Your task to perform on an android device: open app "Life360: Find Family & Friends" (install if not already installed) Image 0: 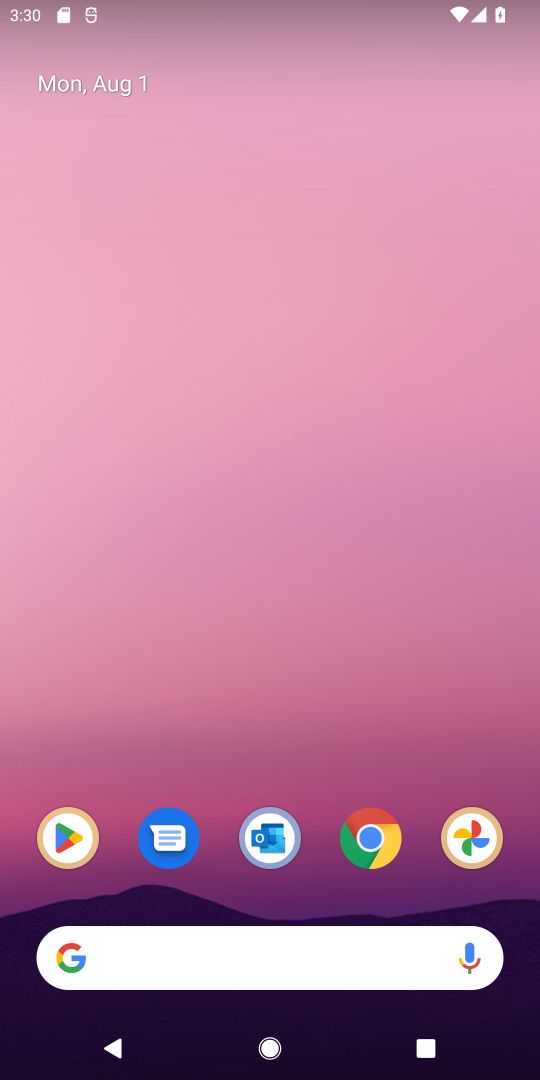
Step 0: click (48, 845)
Your task to perform on an android device: open app "Life360: Find Family & Friends" (install if not already installed) Image 1: 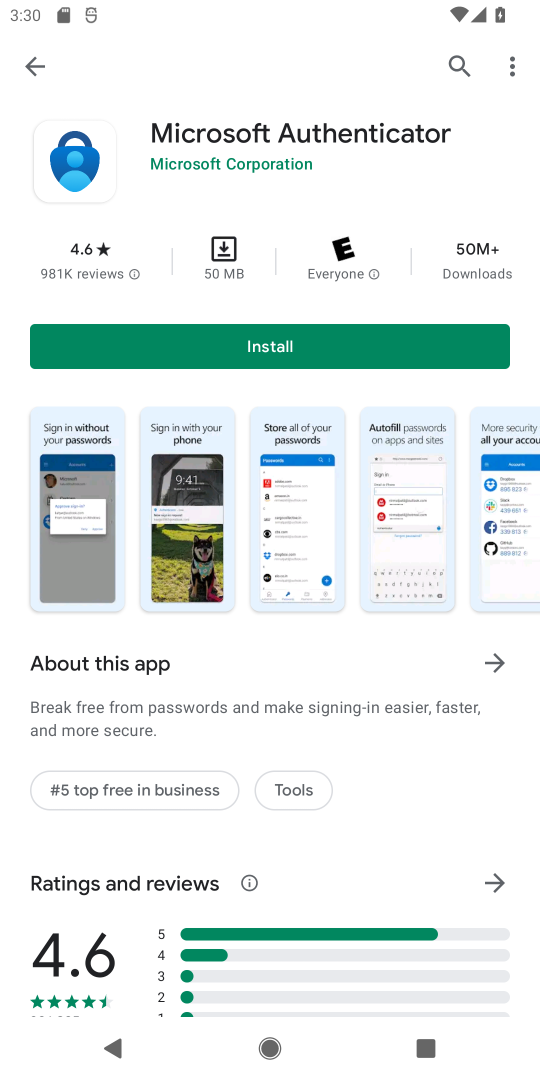
Step 1: click (454, 74)
Your task to perform on an android device: open app "Life360: Find Family & Friends" (install if not already installed) Image 2: 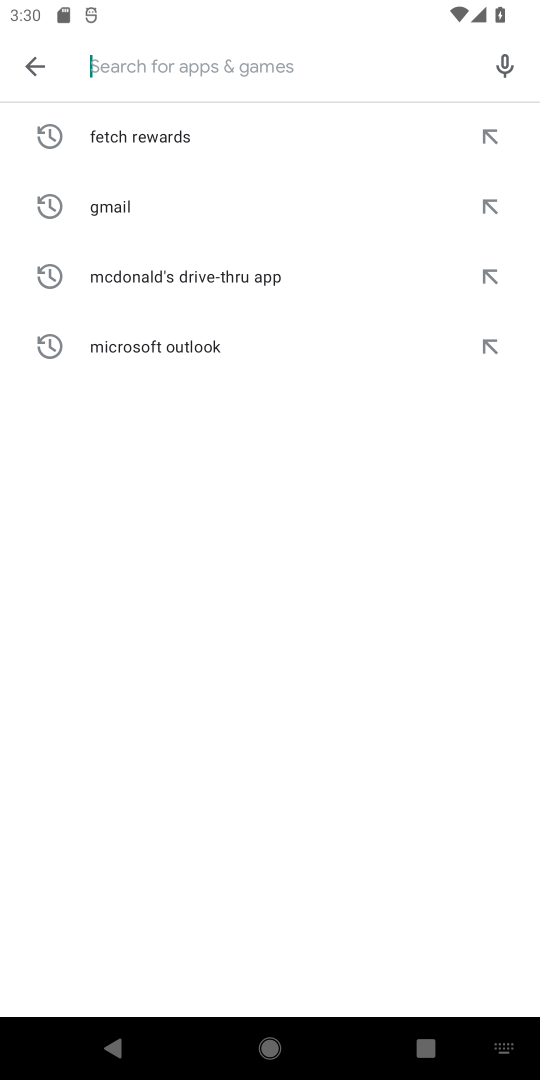
Step 2: click (439, 67)
Your task to perform on an android device: open app "Life360: Find Family & Friends" (install if not already installed) Image 3: 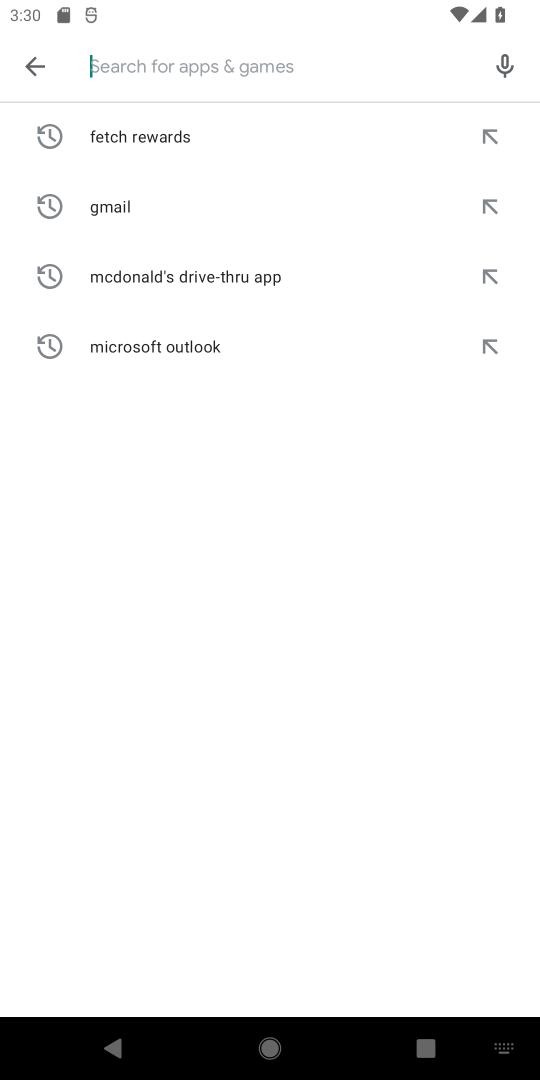
Step 3: type "Life360: Find Family & Friends"
Your task to perform on an android device: open app "Life360: Find Family & Friends" (install if not already installed) Image 4: 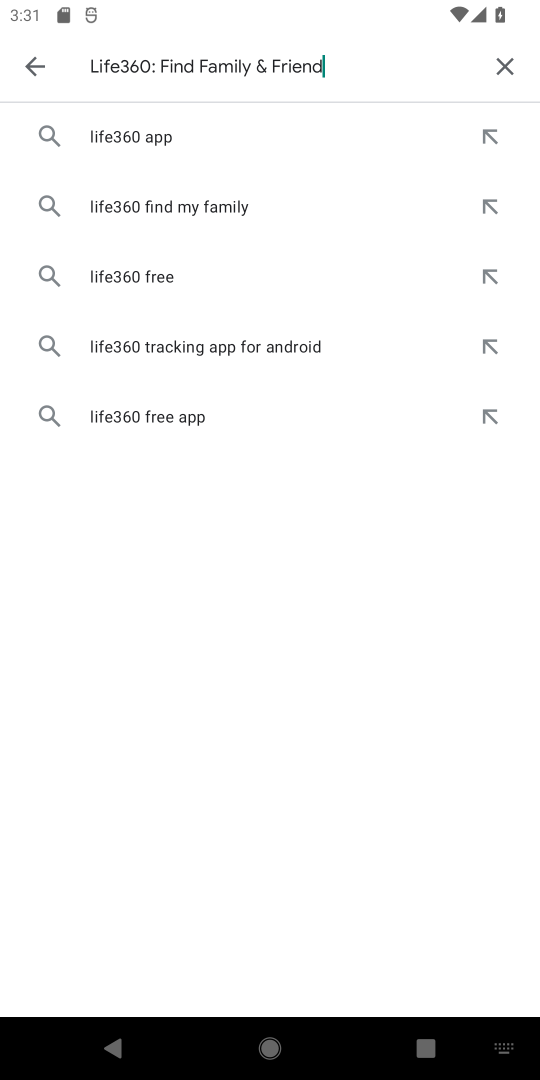
Step 4: type ""
Your task to perform on an android device: open app "Life360: Find Family & Friends" (install if not already installed) Image 5: 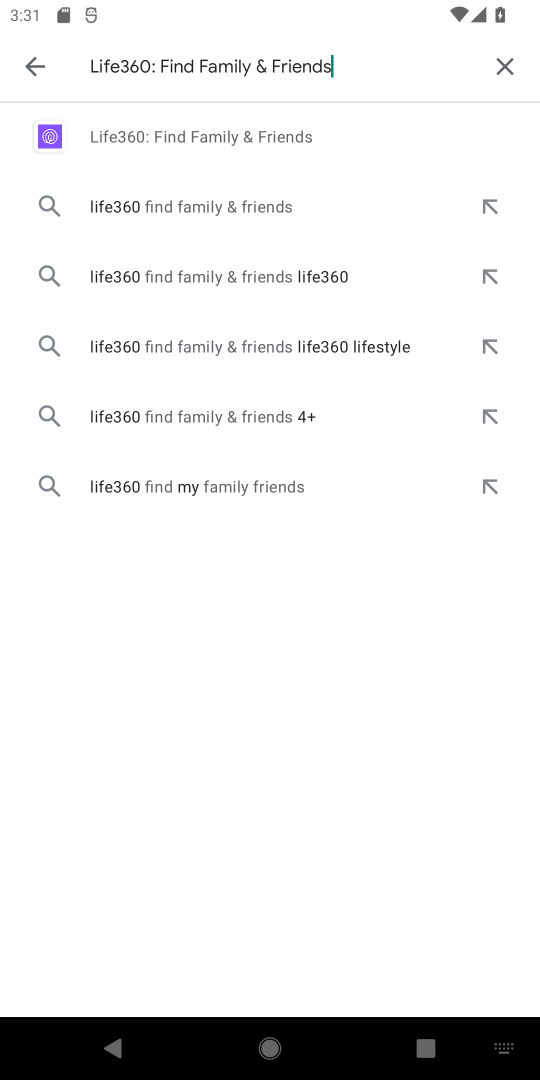
Step 5: click (221, 144)
Your task to perform on an android device: open app "Life360: Find Family & Friends" (install if not already installed) Image 6: 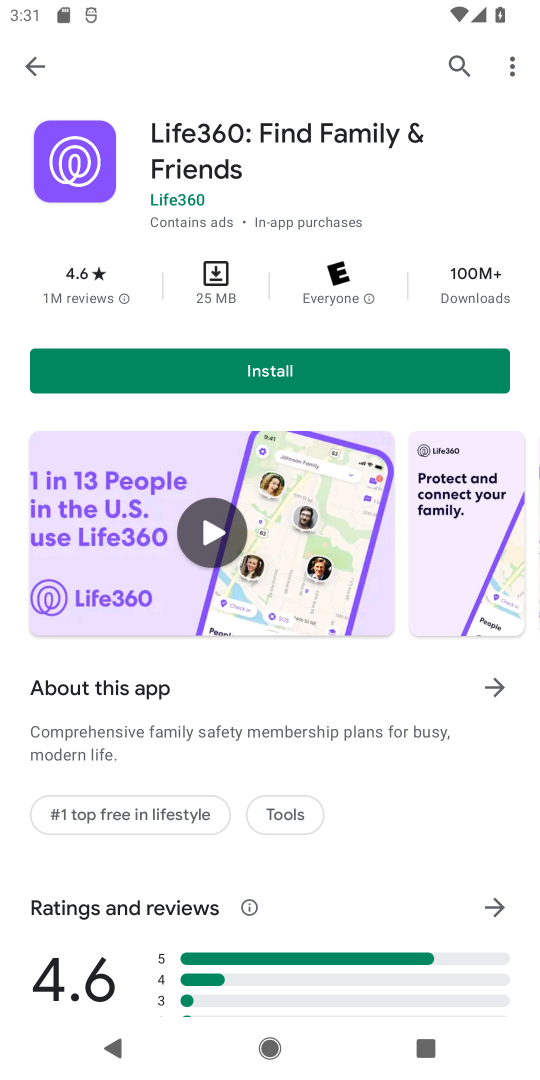
Step 6: click (291, 380)
Your task to perform on an android device: open app "Life360: Find Family & Friends" (install if not already installed) Image 7: 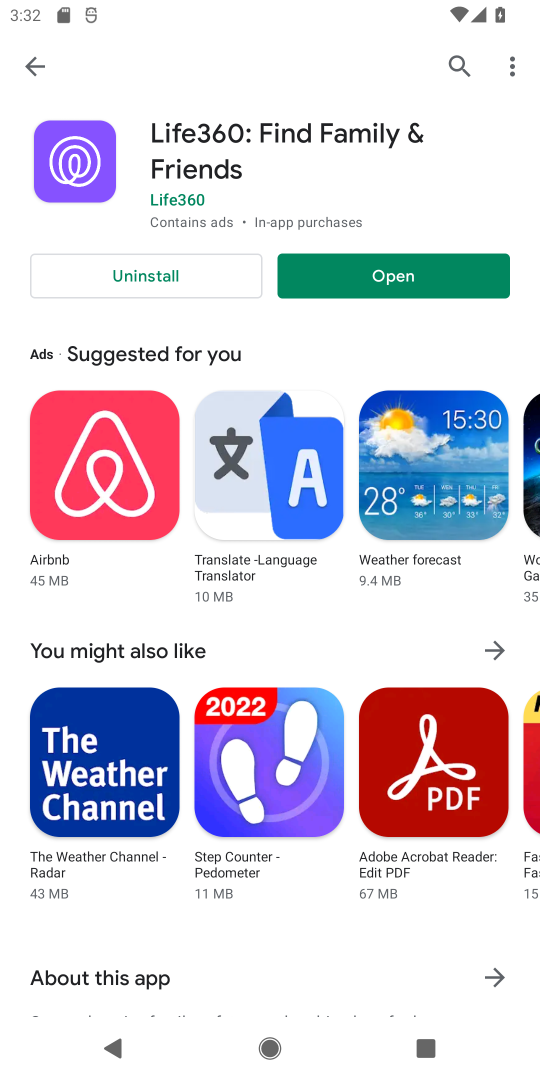
Step 7: click (351, 262)
Your task to perform on an android device: open app "Life360: Find Family & Friends" (install if not already installed) Image 8: 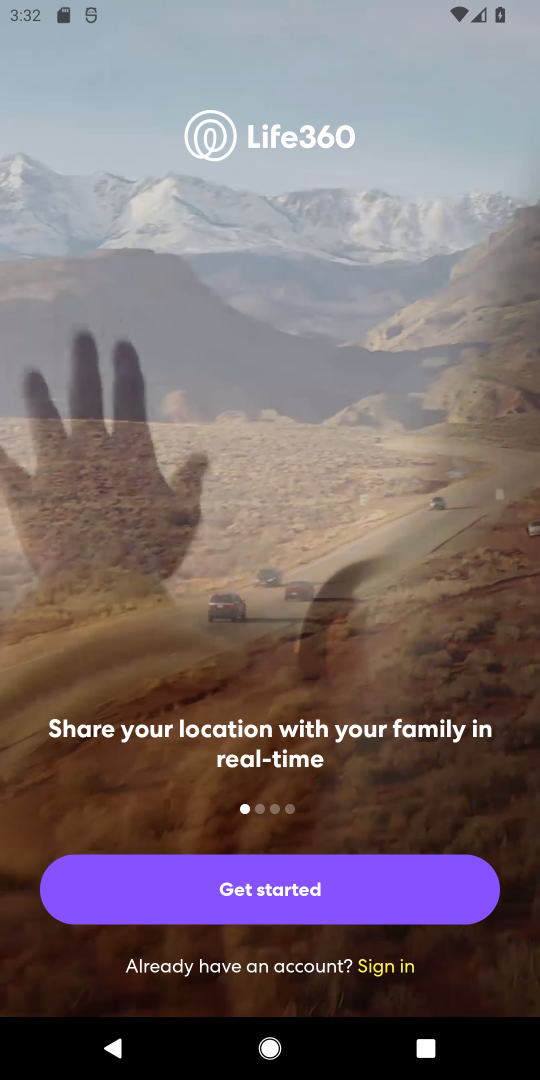
Step 8: task complete